Your task to perform on an android device: turn on the 24-hour format for clock Image 0: 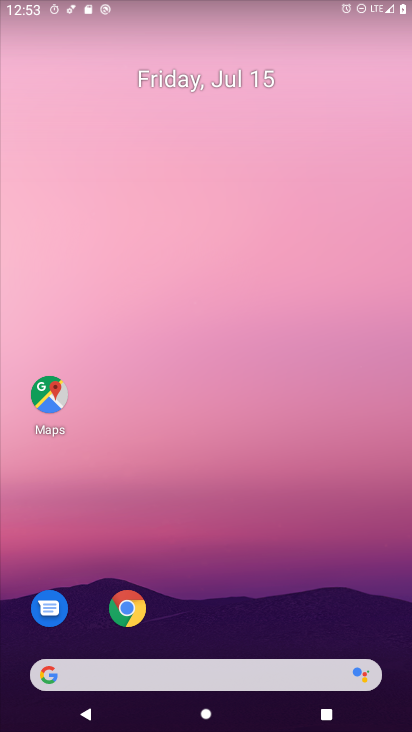
Step 0: drag from (220, 655) to (225, 172)
Your task to perform on an android device: turn on the 24-hour format for clock Image 1: 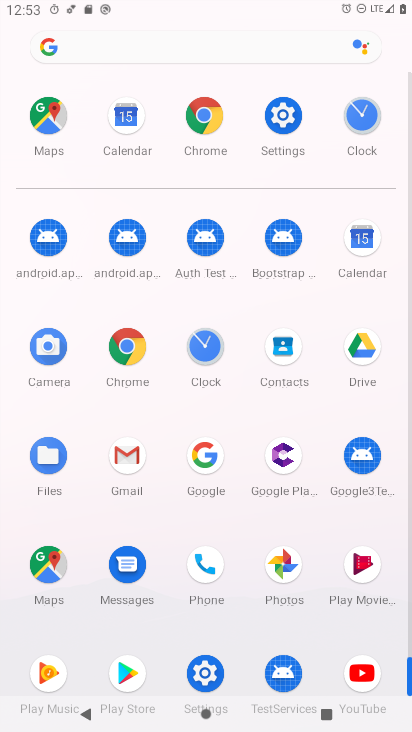
Step 1: click (200, 353)
Your task to perform on an android device: turn on the 24-hour format for clock Image 2: 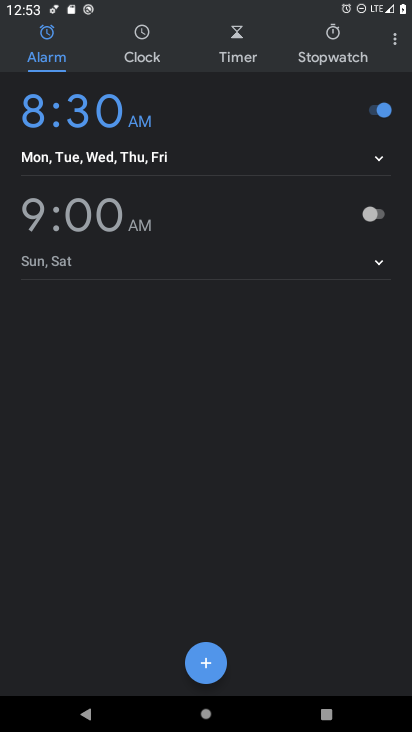
Step 2: click (396, 44)
Your task to perform on an android device: turn on the 24-hour format for clock Image 3: 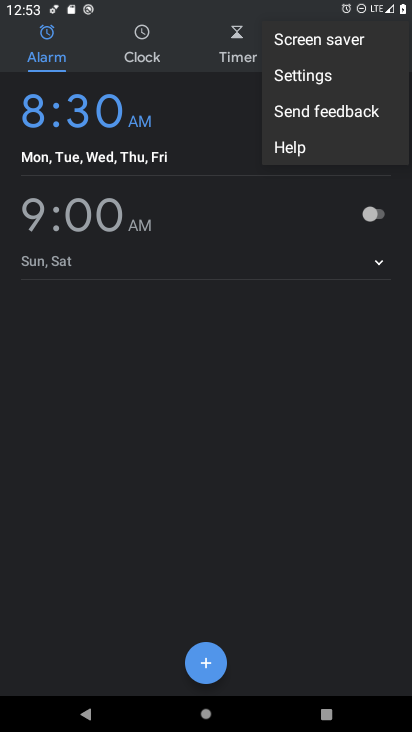
Step 3: click (328, 81)
Your task to perform on an android device: turn on the 24-hour format for clock Image 4: 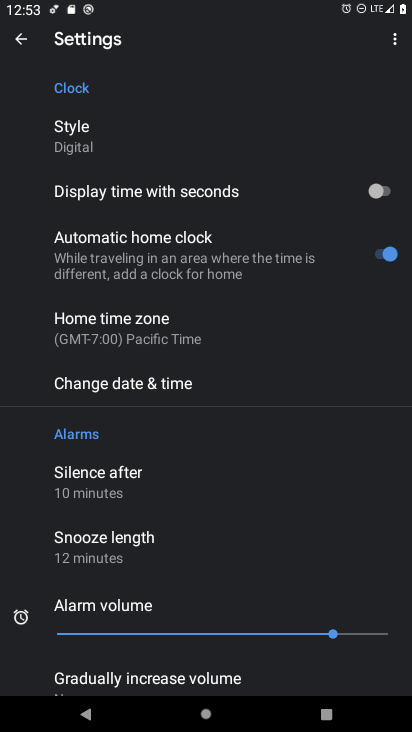
Step 4: click (154, 377)
Your task to perform on an android device: turn on the 24-hour format for clock Image 5: 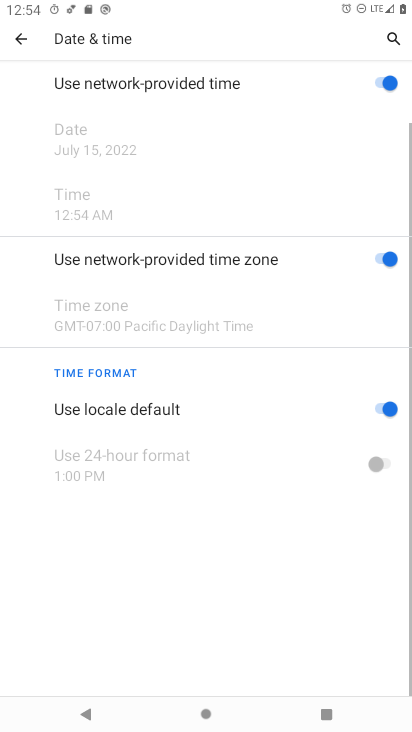
Step 5: click (390, 407)
Your task to perform on an android device: turn on the 24-hour format for clock Image 6: 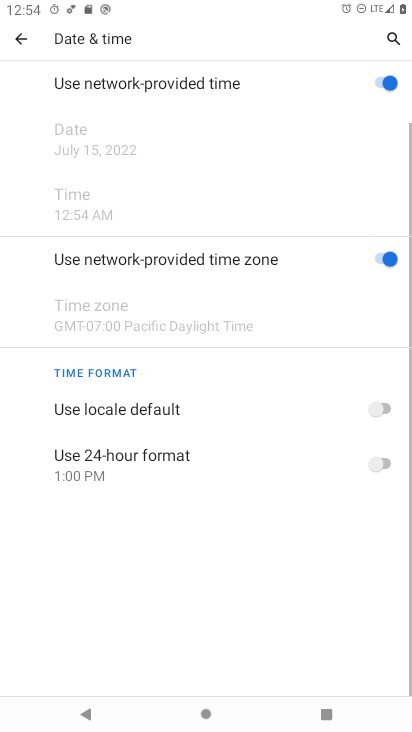
Step 6: click (386, 461)
Your task to perform on an android device: turn on the 24-hour format for clock Image 7: 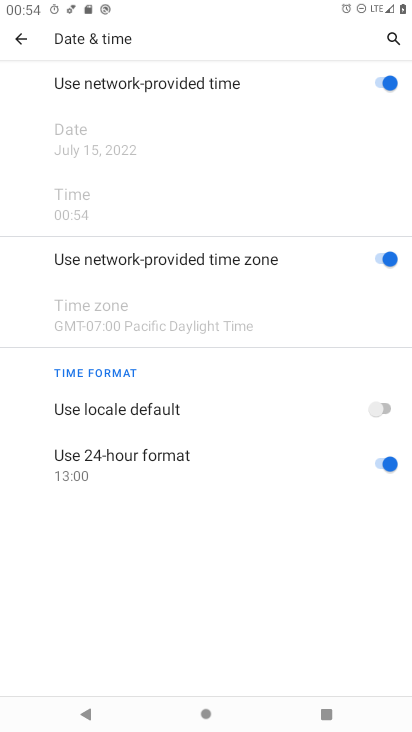
Step 7: task complete